Your task to perform on an android device: add a label to a message in the gmail app Image 0: 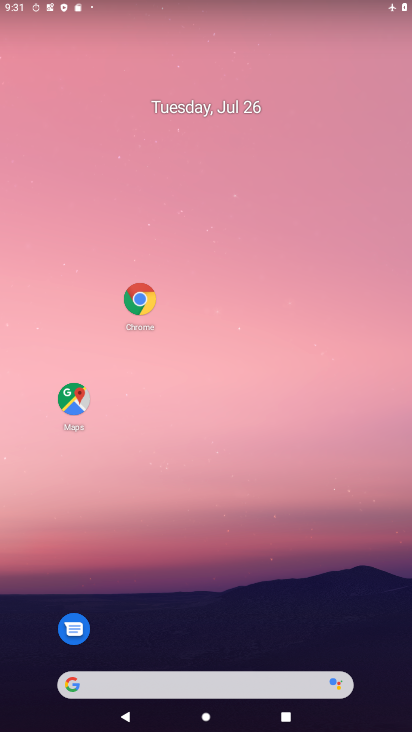
Step 0: drag from (269, 632) to (263, 198)
Your task to perform on an android device: add a label to a message in the gmail app Image 1: 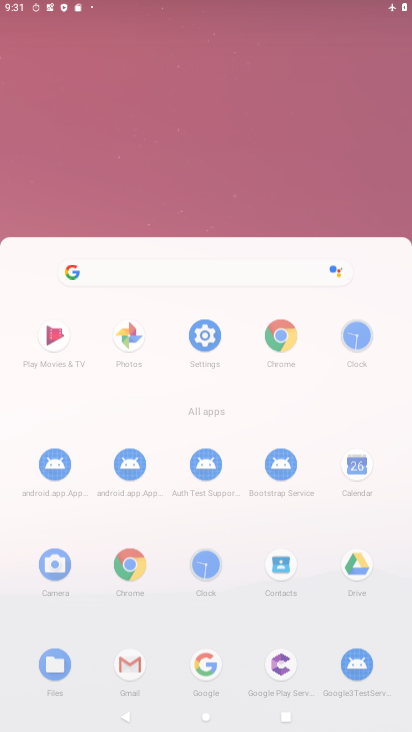
Step 1: click (173, 65)
Your task to perform on an android device: add a label to a message in the gmail app Image 2: 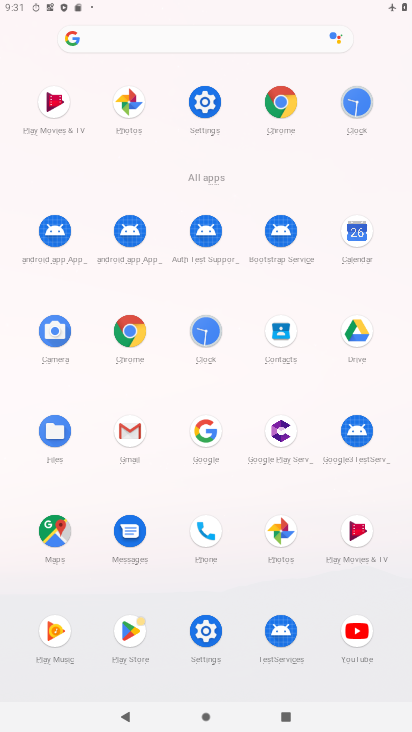
Step 2: click (130, 114)
Your task to perform on an android device: add a label to a message in the gmail app Image 3: 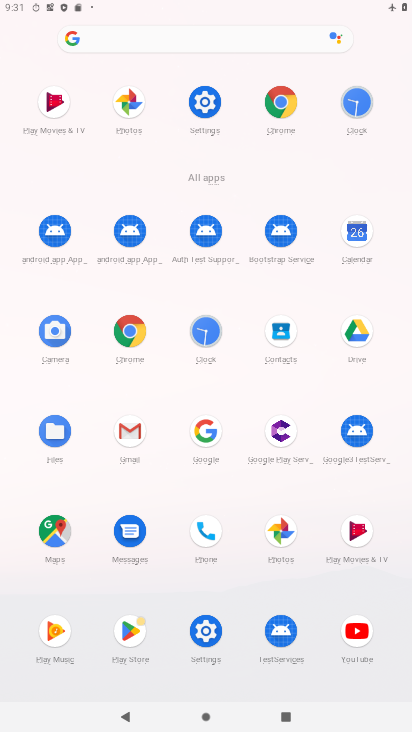
Step 3: drag from (205, 440) to (205, 67)
Your task to perform on an android device: add a label to a message in the gmail app Image 4: 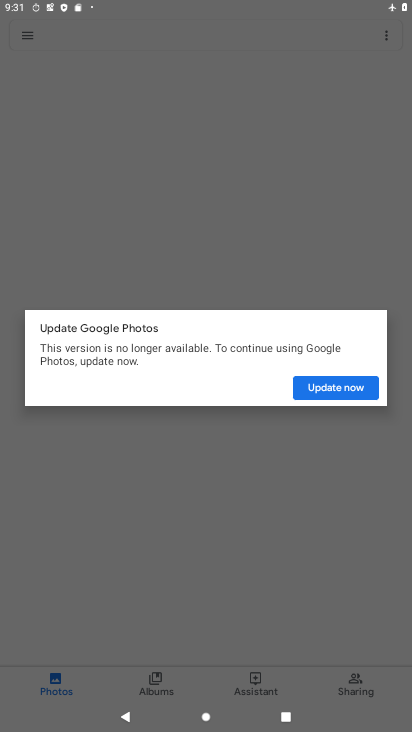
Step 4: click (202, 111)
Your task to perform on an android device: add a label to a message in the gmail app Image 5: 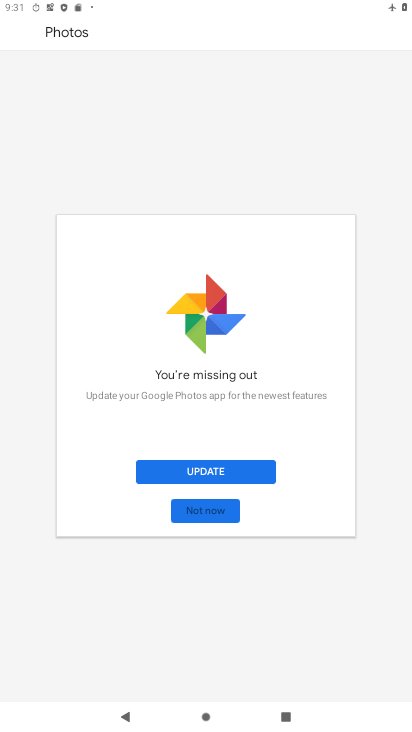
Step 5: click (199, 512)
Your task to perform on an android device: add a label to a message in the gmail app Image 6: 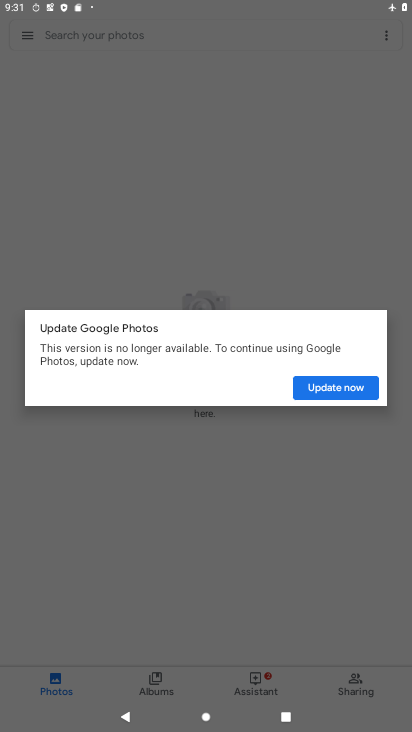
Step 6: click (231, 193)
Your task to perform on an android device: add a label to a message in the gmail app Image 7: 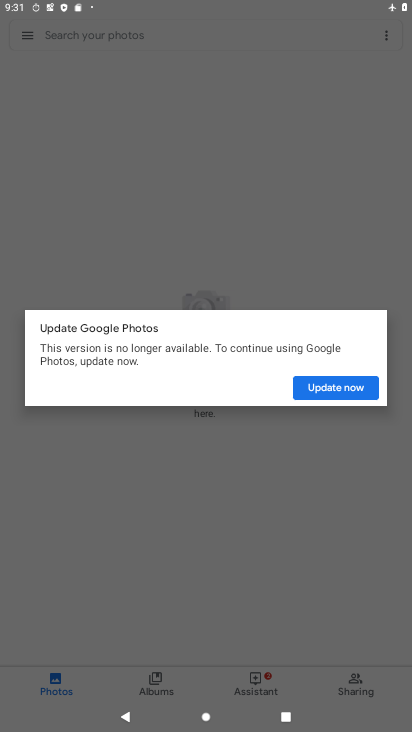
Step 7: click (230, 188)
Your task to perform on an android device: add a label to a message in the gmail app Image 8: 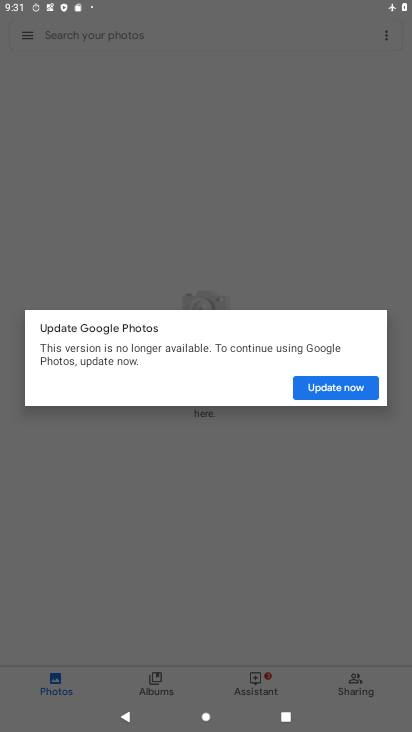
Step 8: click (182, 202)
Your task to perform on an android device: add a label to a message in the gmail app Image 9: 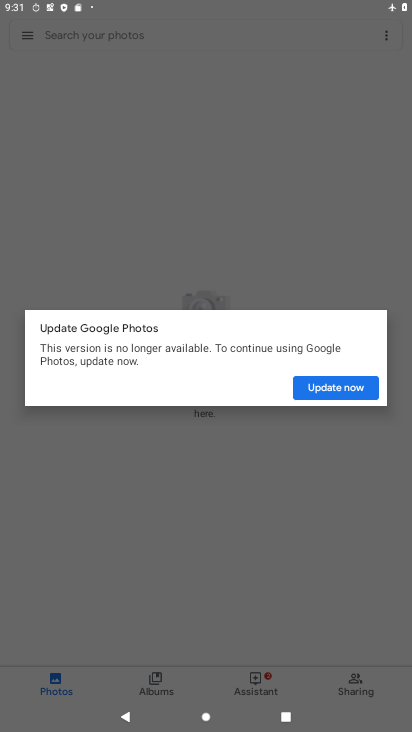
Step 9: click (195, 185)
Your task to perform on an android device: add a label to a message in the gmail app Image 10: 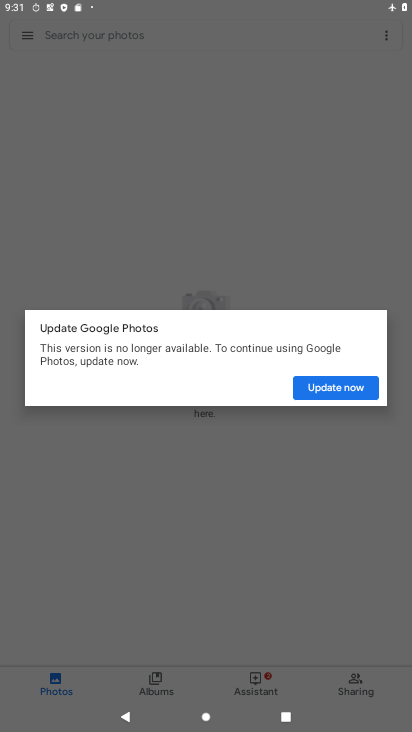
Step 10: click (195, 185)
Your task to perform on an android device: add a label to a message in the gmail app Image 11: 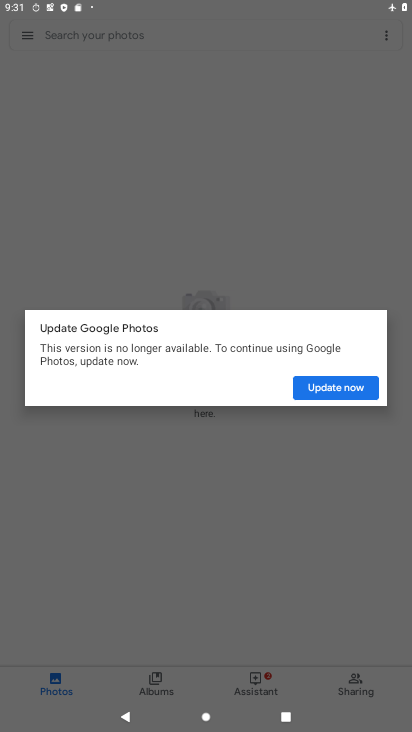
Step 11: click (199, 185)
Your task to perform on an android device: add a label to a message in the gmail app Image 12: 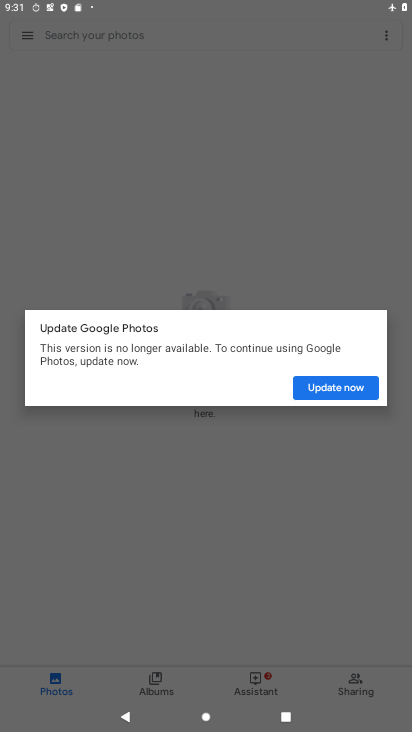
Step 12: click (222, 205)
Your task to perform on an android device: add a label to a message in the gmail app Image 13: 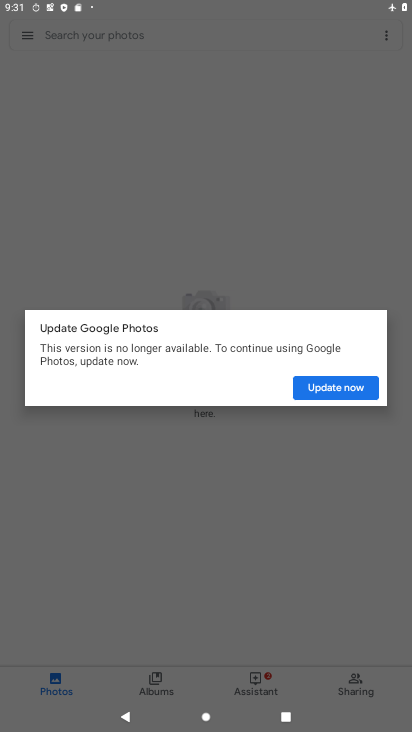
Step 13: click (231, 200)
Your task to perform on an android device: add a label to a message in the gmail app Image 14: 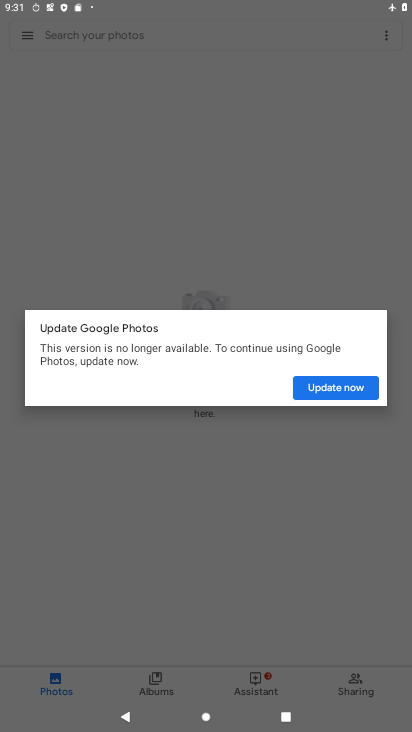
Step 14: click (189, 166)
Your task to perform on an android device: add a label to a message in the gmail app Image 15: 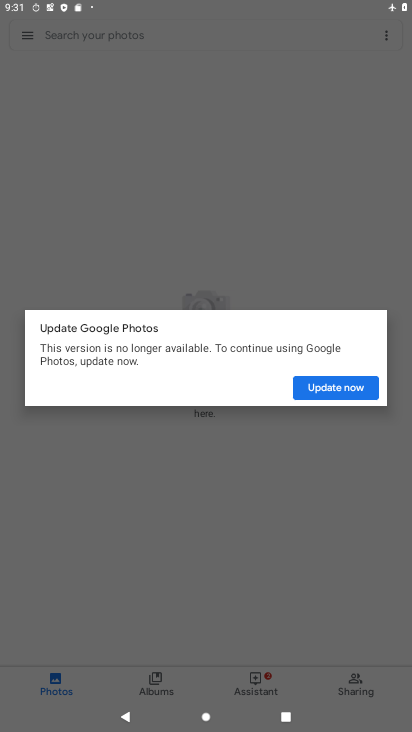
Step 15: press back button
Your task to perform on an android device: add a label to a message in the gmail app Image 16: 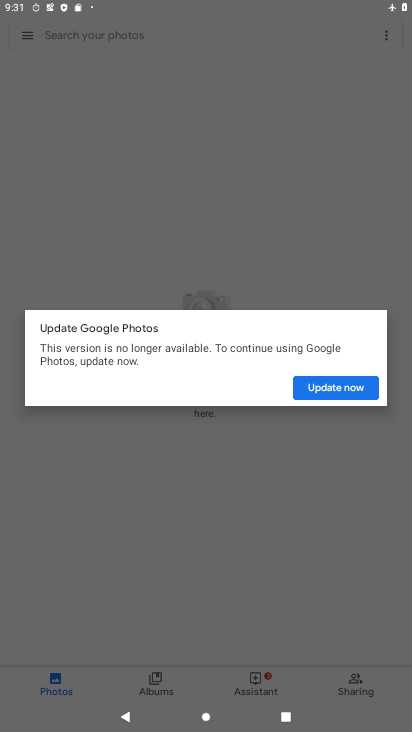
Step 16: press back button
Your task to perform on an android device: add a label to a message in the gmail app Image 17: 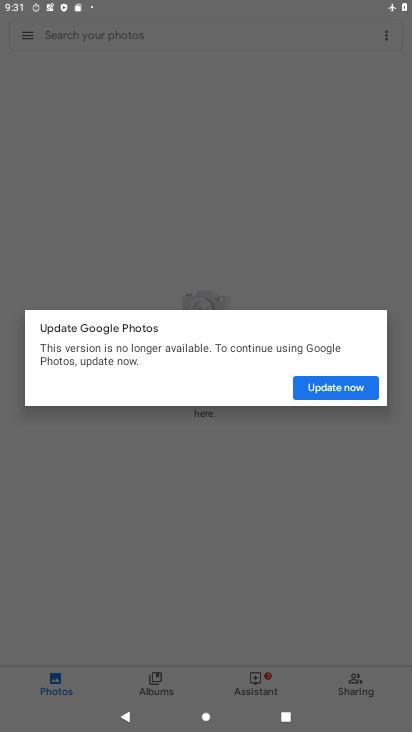
Step 17: click (235, 194)
Your task to perform on an android device: add a label to a message in the gmail app Image 18: 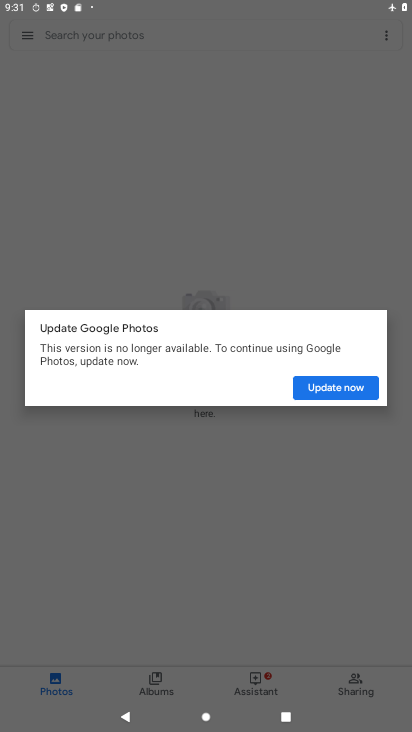
Step 18: click (235, 193)
Your task to perform on an android device: add a label to a message in the gmail app Image 19: 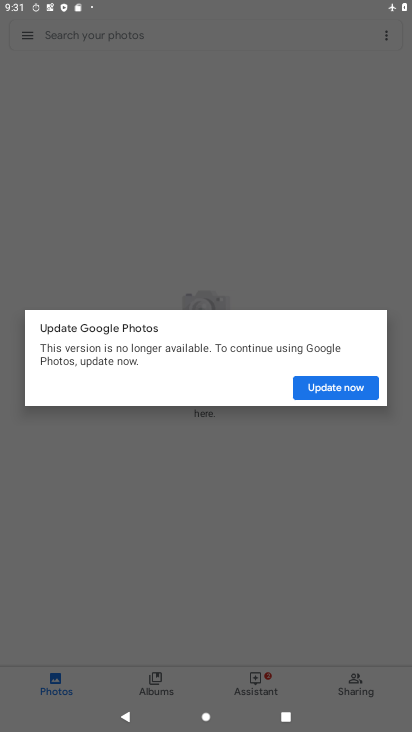
Step 19: click (235, 190)
Your task to perform on an android device: add a label to a message in the gmail app Image 20: 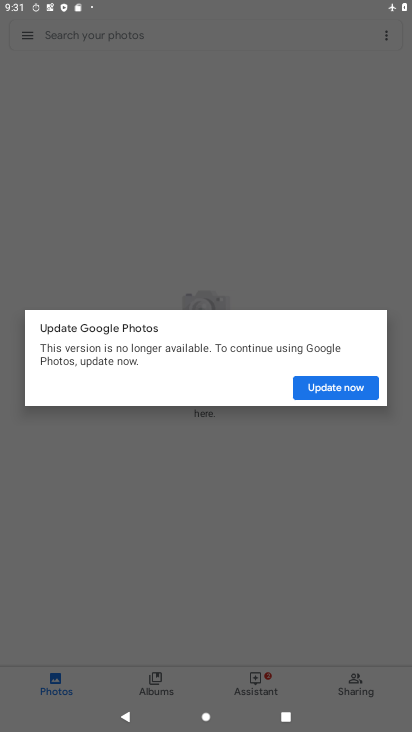
Step 20: click (268, 116)
Your task to perform on an android device: add a label to a message in the gmail app Image 21: 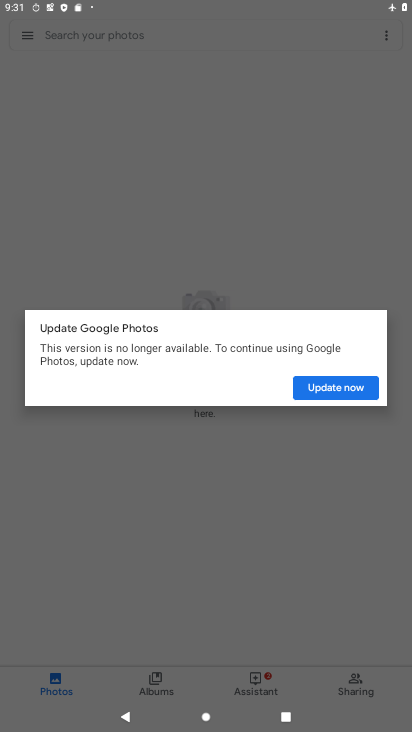
Step 21: click (270, 122)
Your task to perform on an android device: add a label to a message in the gmail app Image 22: 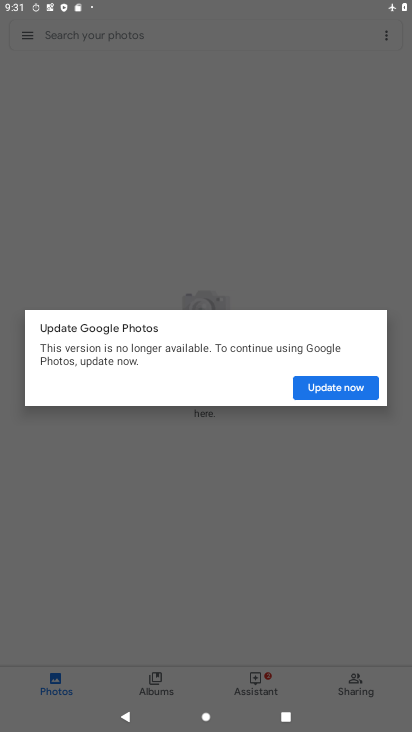
Step 22: click (268, 124)
Your task to perform on an android device: add a label to a message in the gmail app Image 23: 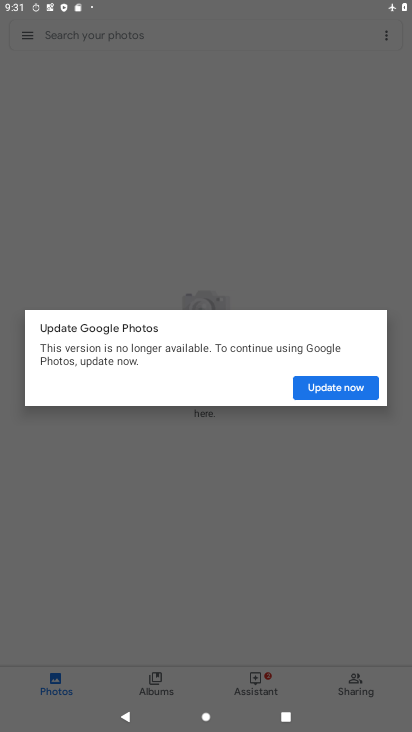
Step 23: click (268, 128)
Your task to perform on an android device: add a label to a message in the gmail app Image 24: 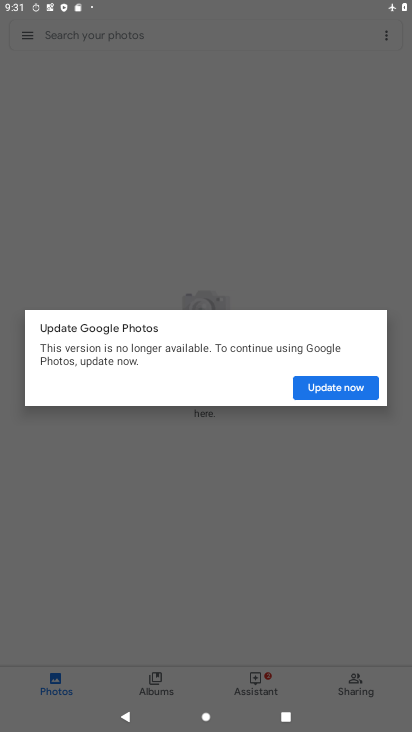
Step 24: click (276, 146)
Your task to perform on an android device: add a label to a message in the gmail app Image 25: 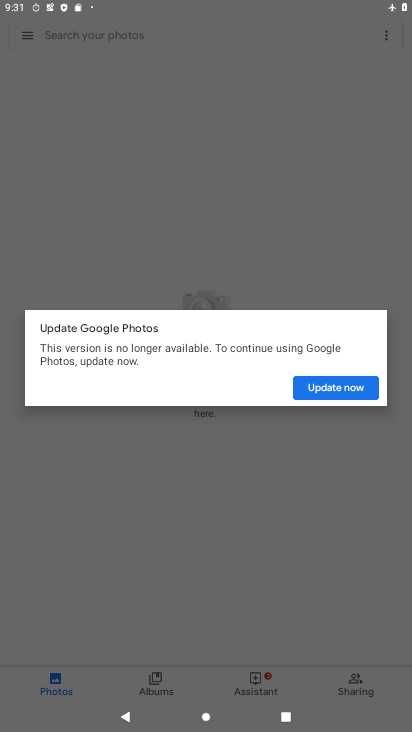
Step 25: click (328, 213)
Your task to perform on an android device: add a label to a message in the gmail app Image 26: 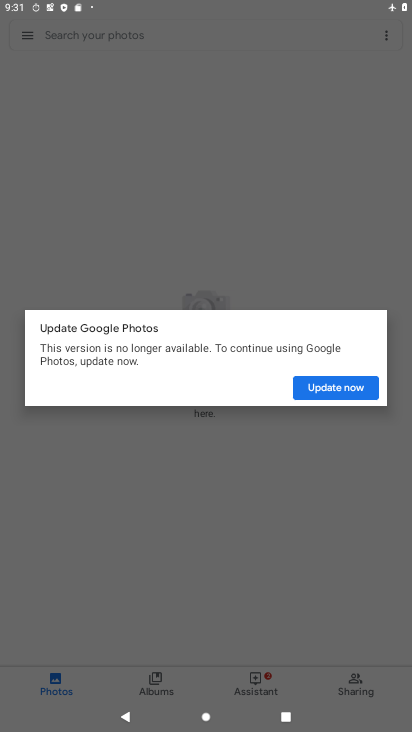
Step 26: press home button
Your task to perform on an android device: add a label to a message in the gmail app Image 27: 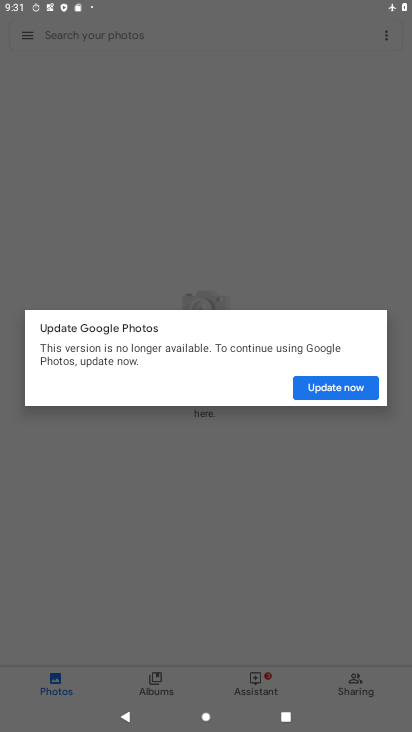
Step 27: press home button
Your task to perform on an android device: add a label to a message in the gmail app Image 28: 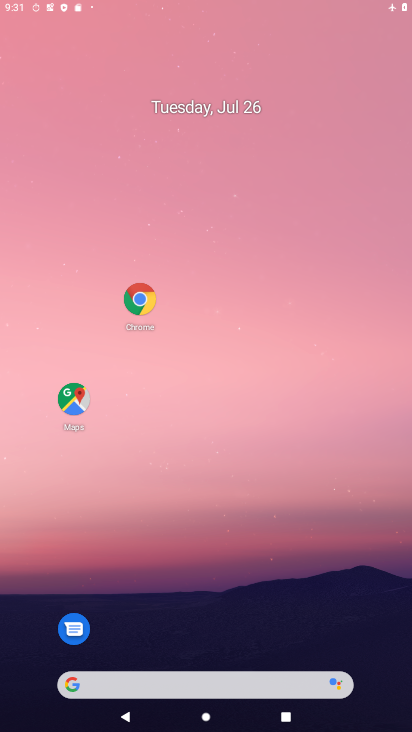
Step 28: press back button
Your task to perform on an android device: add a label to a message in the gmail app Image 29: 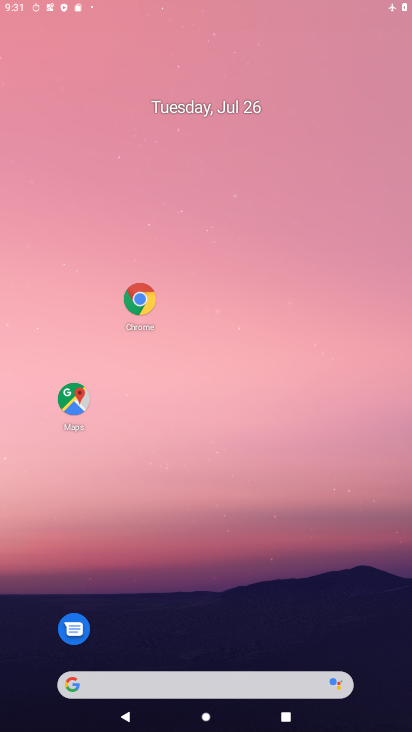
Step 29: press home button
Your task to perform on an android device: add a label to a message in the gmail app Image 30: 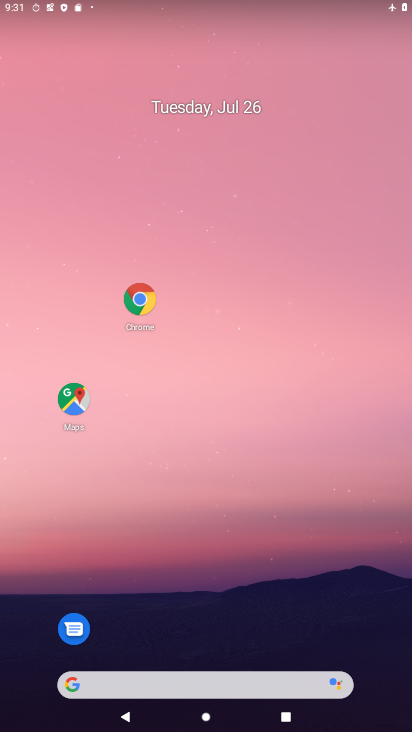
Step 30: press back button
Your task to perform on an android device: add a label to a message in the gmail app Image 31: 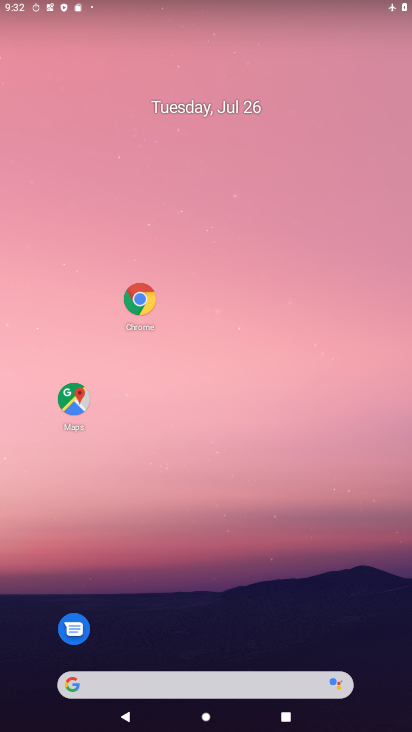
Step 31: drag from (182, 333) to (147, 36)
Your task to perform on an android device: add a label to a message in the gmail app Image 32: 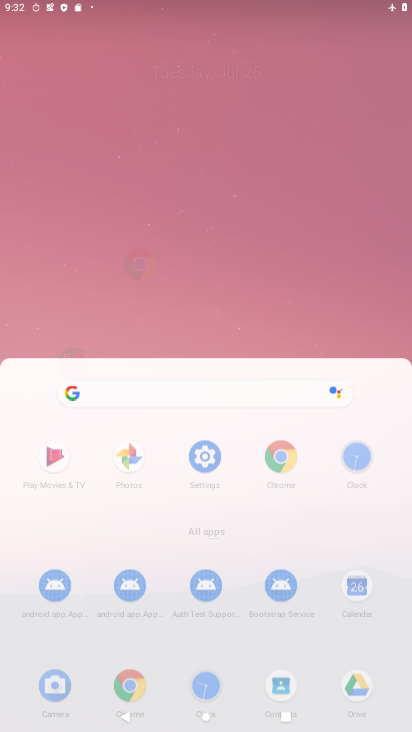
Step 32: drag from (205, 553) to (200, 56)
Your task to perform on an android device: add a label to a message in the gmail app Image 33: 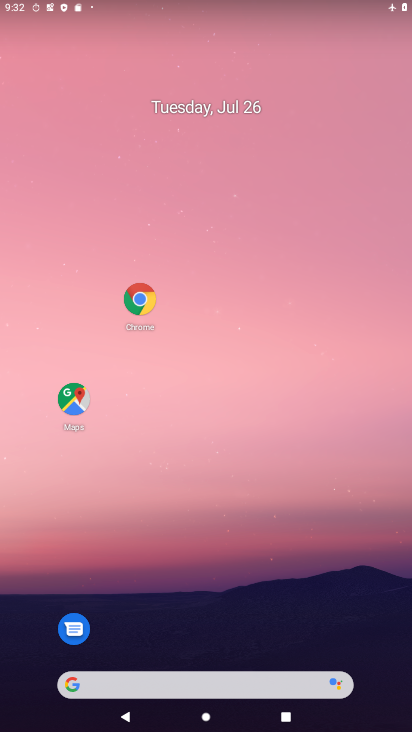
Step 33: drag from (206, 260) to (180, 31)
Your task to perform on an android device: add a label to a message in the gmail app Image 34: 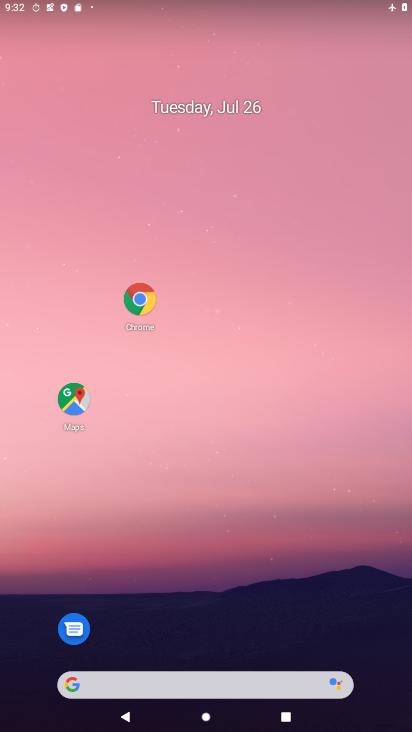
Step 34: drag from (204, 445) to (175, 83)
Your task to perform on an android device: add a label to a message in the gmail app Image 35: 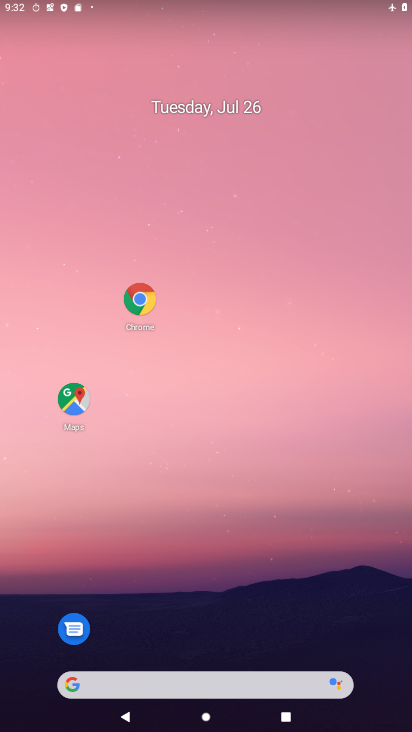
Step 35: drag from (198, 31) to (212, 79)
Your task to perform on an android device: add a label to a message in the gmail app Image 36: 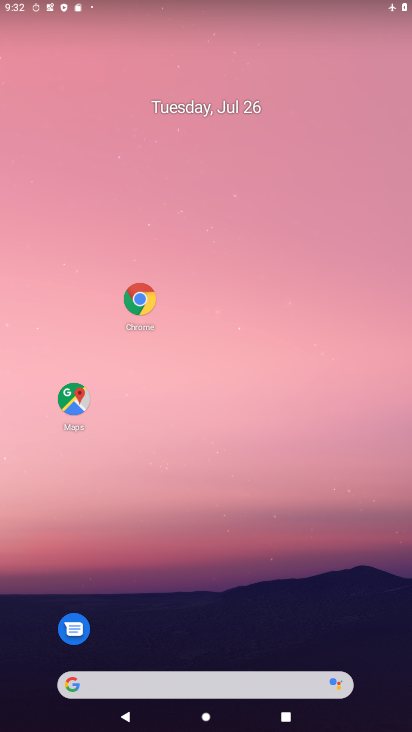
Step 36: drag from (244, 505) to (160, 73)
Your task to perform on an android device: add a label to a message in the gmail app Image 37: 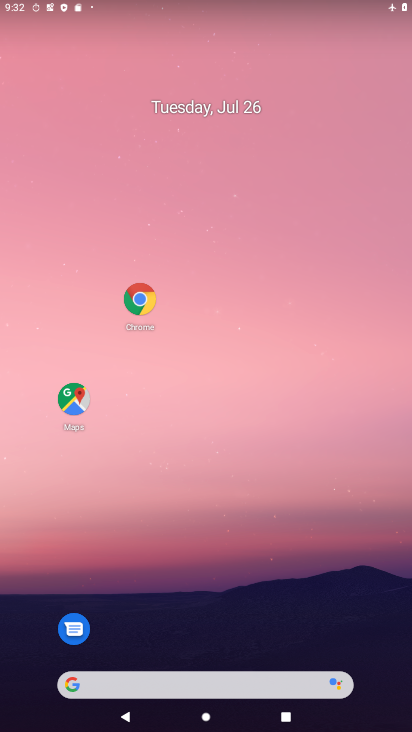
Step 37: drag from (244, 421) to (197, 17)
Your task to perform on an android device: add a label to a message in the gmail app Image 38: 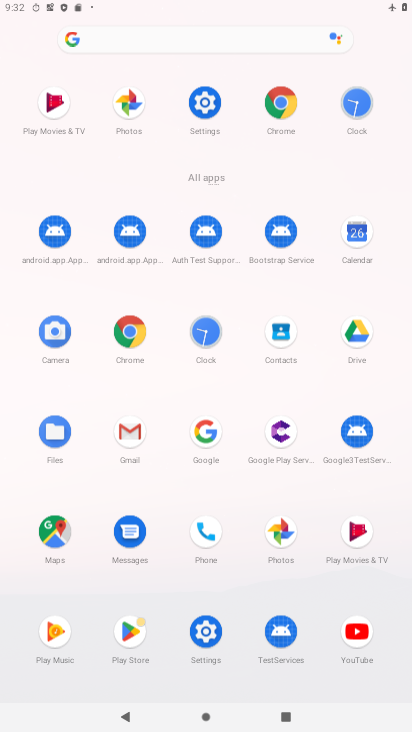
Step 38: drag from (165, 346) to (119, 8)
Your task to perform on an android device: add a label to a message in the gmail app Image 39: 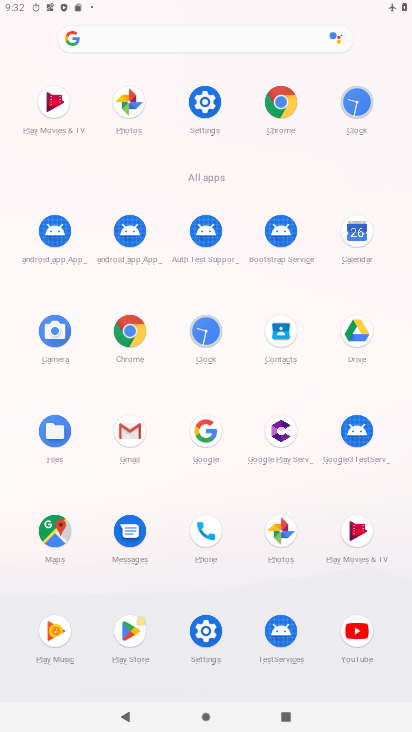
Step 39: click (186, 36)
Your task to perform on an android device: add a label to a message in the gmail app Image 40: 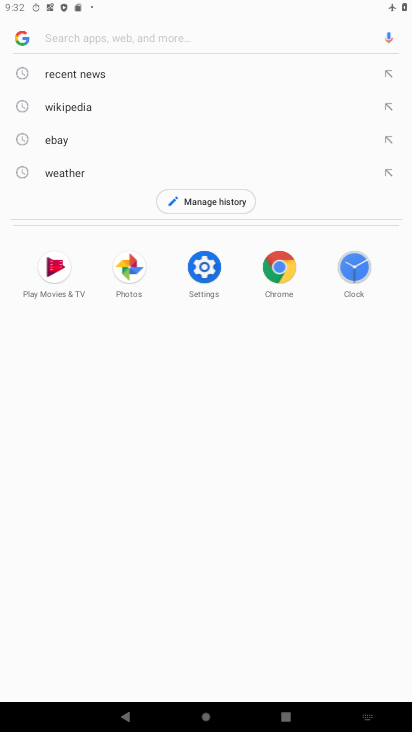
Step 40: press back button
Your task to perform on an android device: add a label to a message in the gmail app Image 41: 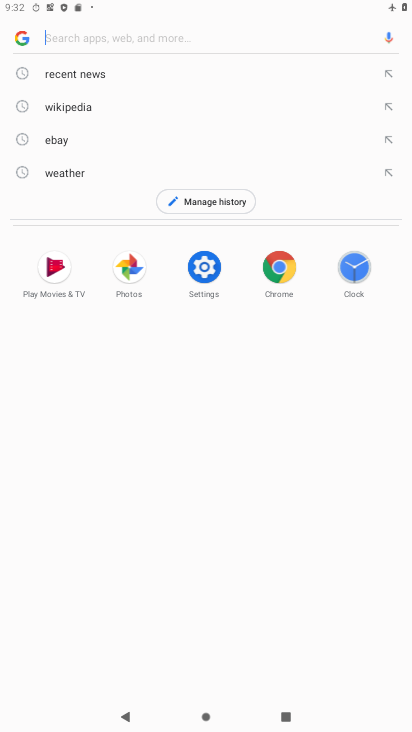
Step 41: press back button
Your task to perform on an android device: add a label to a message in the gmail app Image 42: 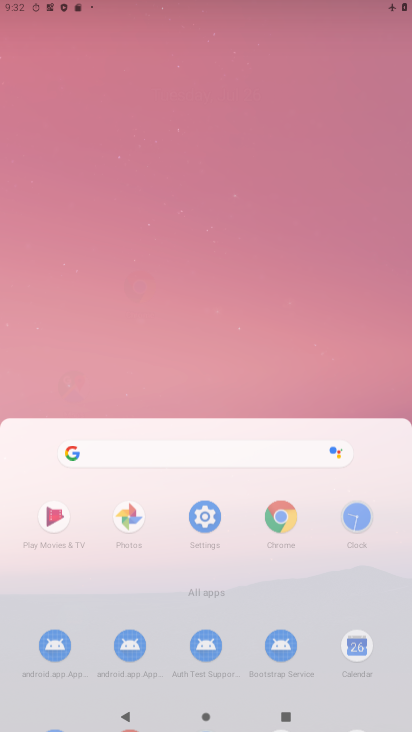
Step 42: press back button
Your task to perform on an android device: add a label to a message in the gmail app Image 43: 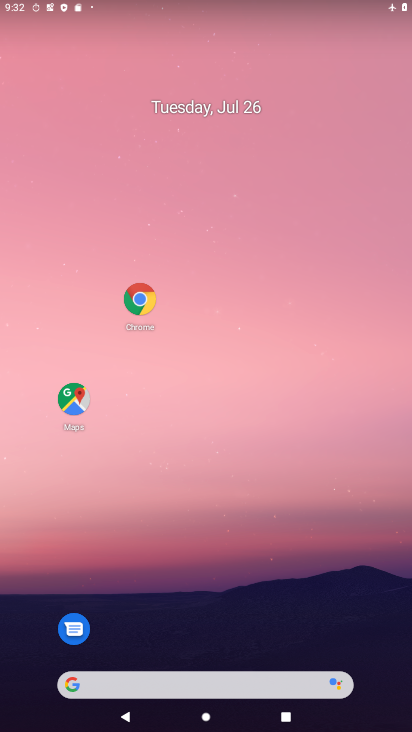
Step 43: drag from (199, 295) to (169, 88)
Your task to perform on an android device: add a label to a message in the gmail app Image 44: 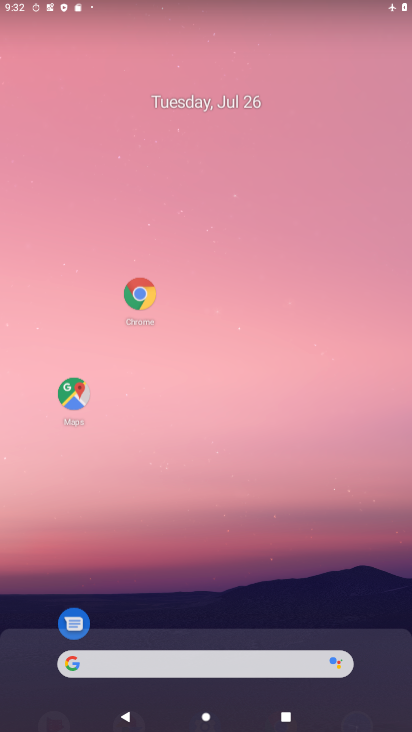
Step 44: drag from (193, 540) to (123, 14)
Your task to perform on an android device: add a label to a message in the gmail app Image 45: 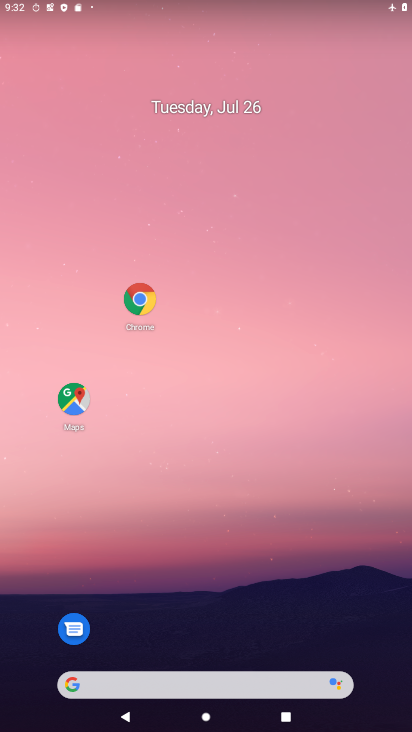
Step 45: drag from (111, 19) to (195, 59)
Your task to perform on an android device: add a label to a message in the gmail app Image 46: 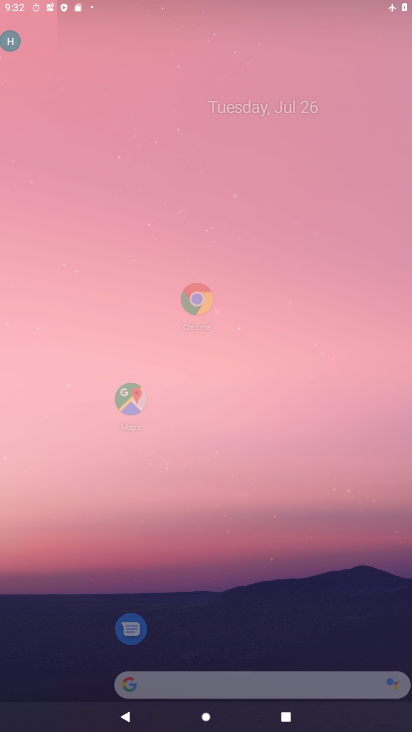
Step 46: drag from (252, 422) to (152, 53)
Your task to perform on an android device: add a label to a message in the gmail app Image 47: 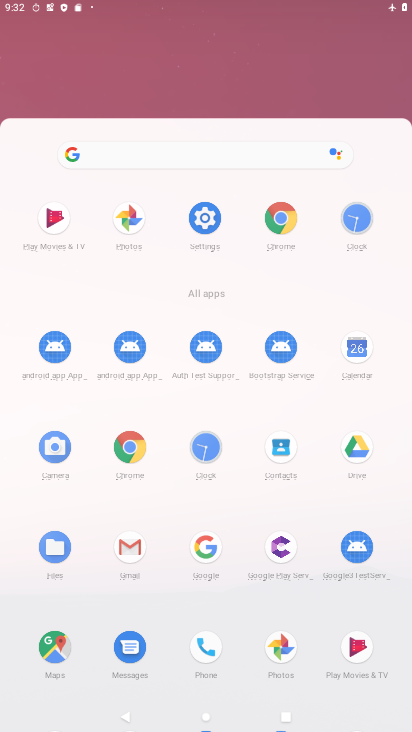
Step 47: drag from (134, 68) to (194, 92)
Your task to perform on an android device: add a label to a message in the gmail app Image 48: 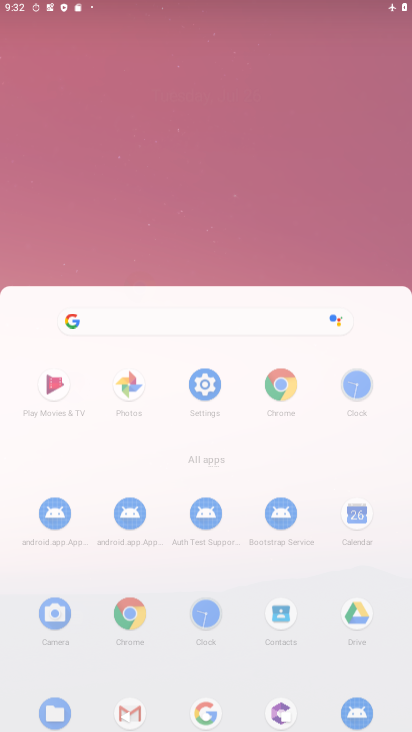
Step 48: drag from (298, 402) to (176, 143)
Your task to perform on an android device: add a label to a message in the gmail app Image 49: 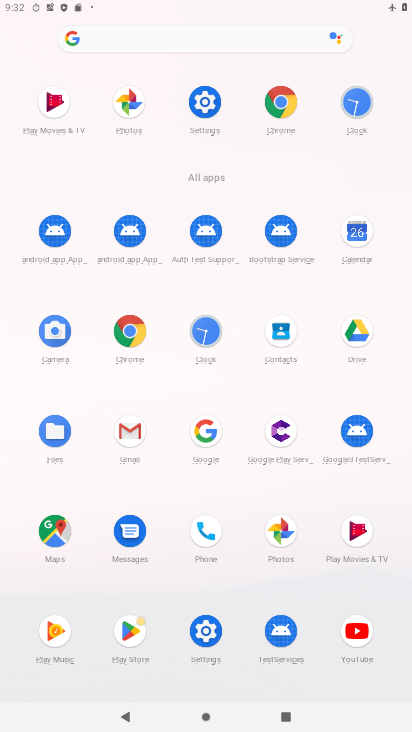
Step 49: click (129, 430)
Your task to perform on an android device: add a label to a message in the gmail app Image 50: 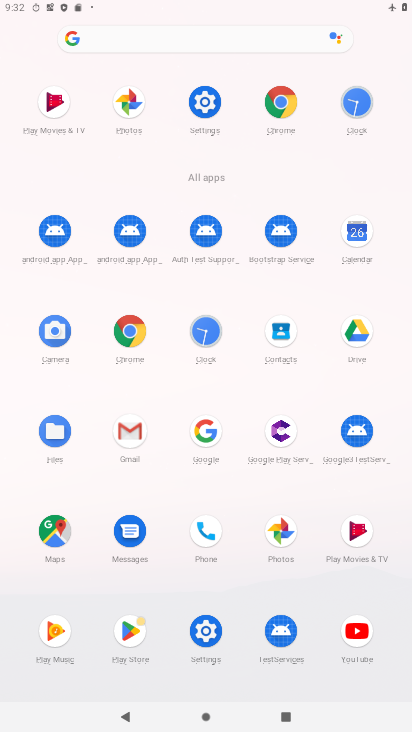
Step 50: click (137, 437)
Your task to perform on an android device: add a label to a message in the gmail app Image 51: 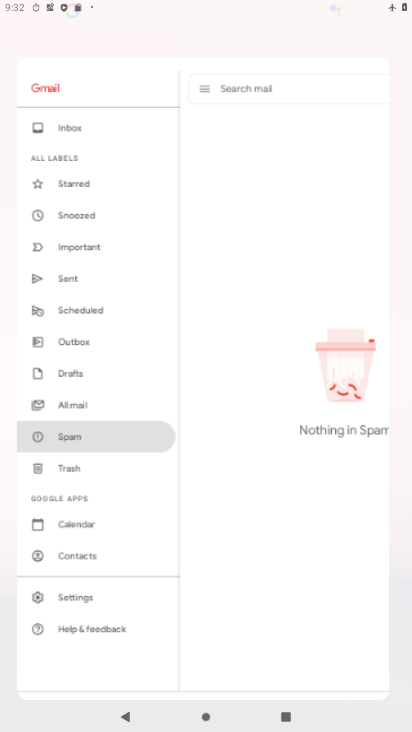
Step 51: click (139, 423)
Your task to perform on an android device: add a label to a message in the gmail app Image 52: 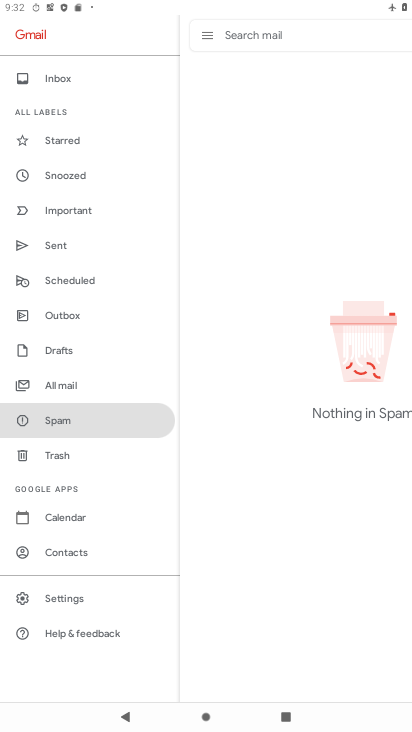
Step 52: click (67, 375)
Your task to perform on an android device: add a label to a message in the gmail app Image 53: 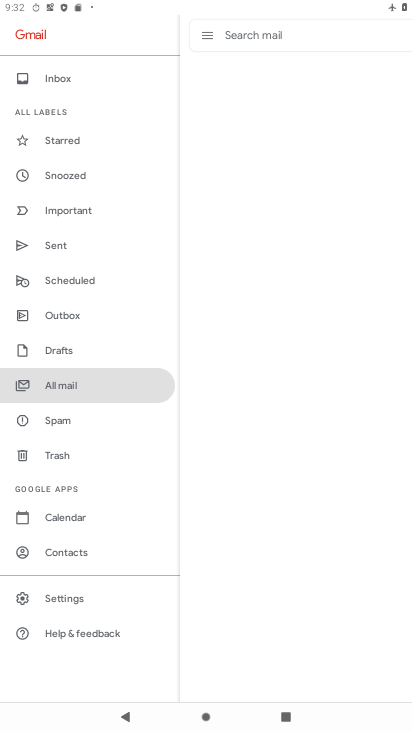
Step 53: click (67, 380)
Your task to perform on an android device: add a label to a message in the gmail app Image 54: 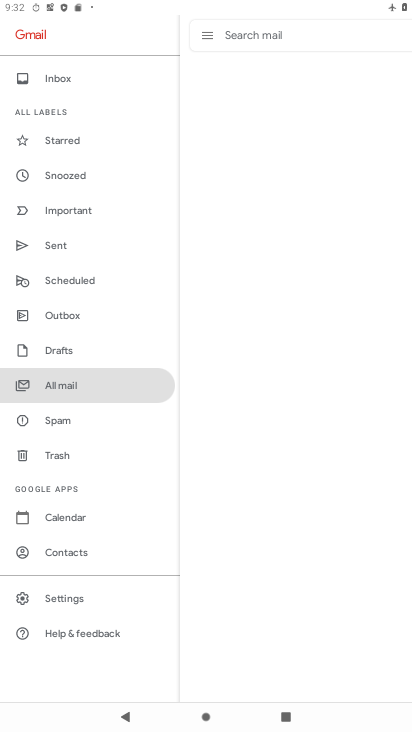
Step 54: click (69, 381)
Your task to perform on an android device: add a label to a message in the gmail app Image 55: 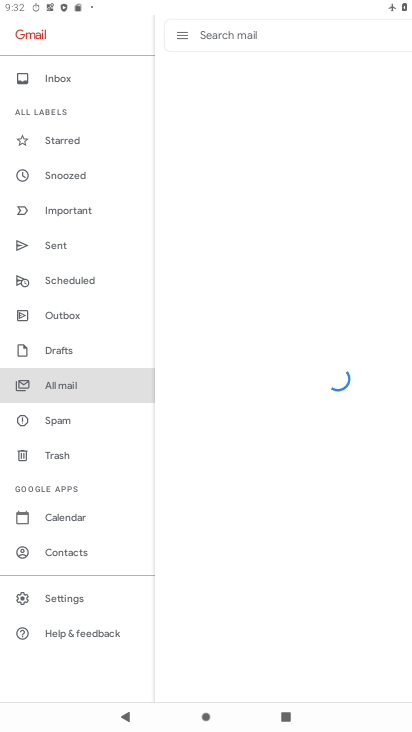
Step 55: click (69, 381)
Your task to perform on an android device: add a label to a message in the gmail app Image 56: 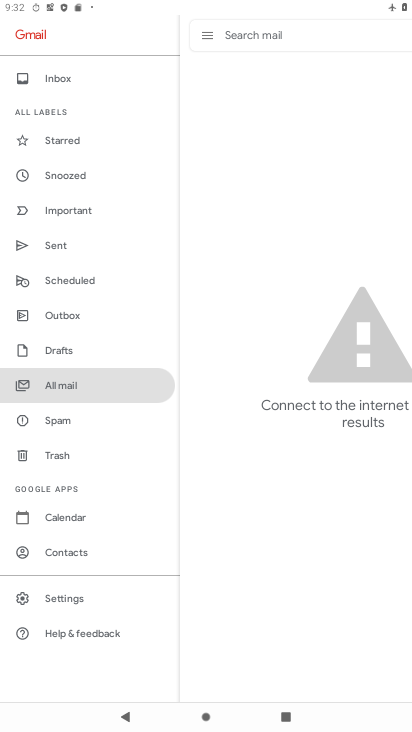
Step 56: task complete